Your task to perform on an android device: Turn on the flashlight Image 0: 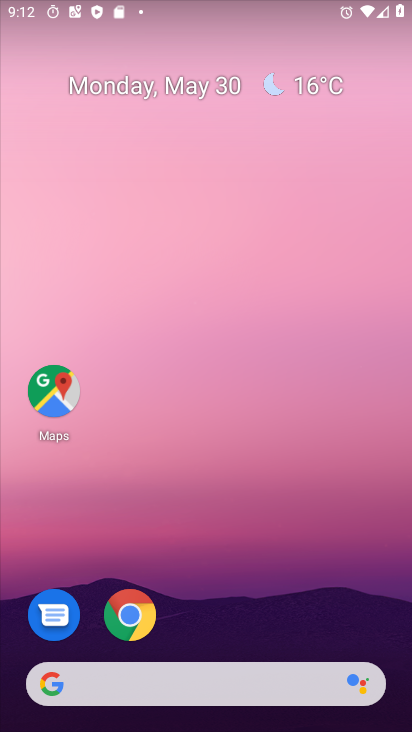
Step 0: drag from (320, 543) to (267, 129)
Your task to perform on an android device: Turn on the flashlight Image 1: 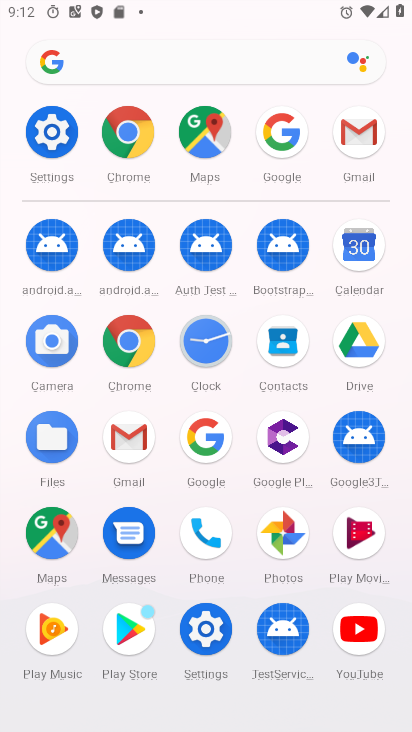
Step 1: click (49, 148)
Your task to perform on an android device: Turn on the flashlight Image 2: 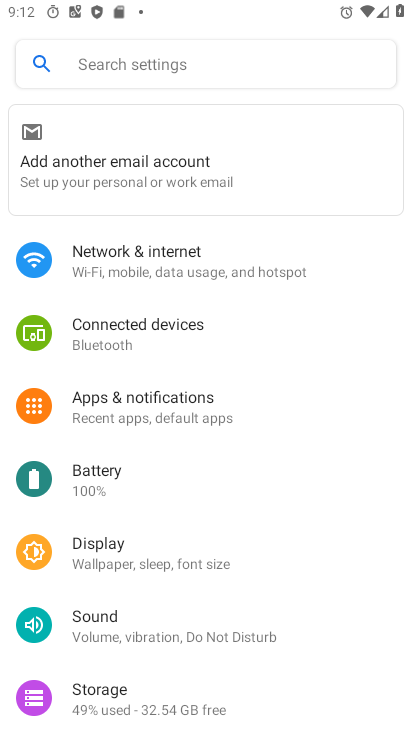
Step 2: task complete